Your task to perform on an android device: Go to Android settings Image 0: 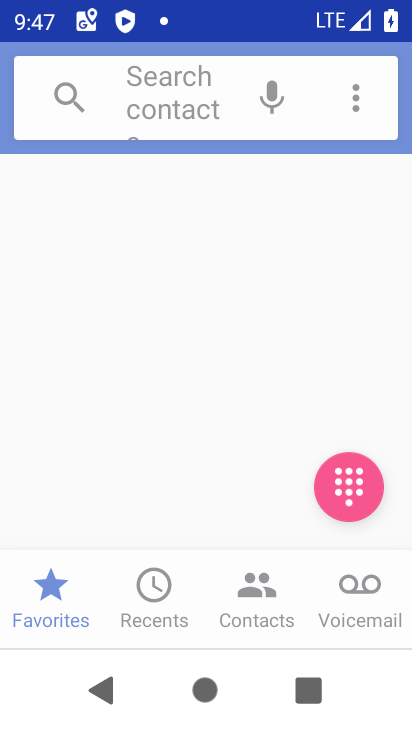
Step 0: drag from (244, 581) to (253, 101)
Your task to perform on an android device: Go to Android settings Image 1: 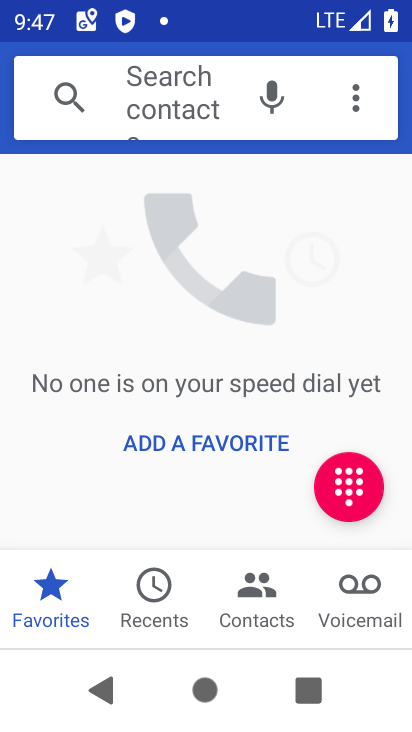
Step 1: press home button
Your task to perform on an android device: Go to Android settings Image 2: 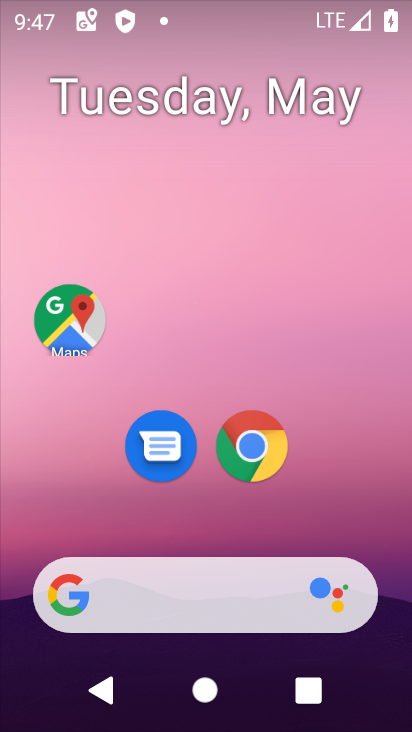
Step 2: drag from (206, 590) to (223, 20)
Your task to perform on an android device: Go to Android settings Image 3: 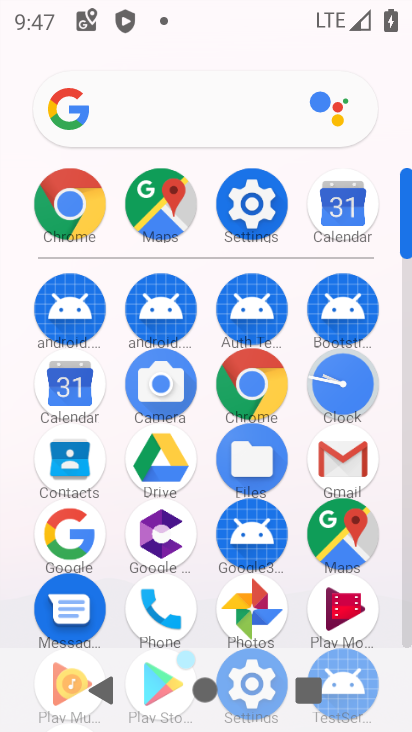
Step 3: click (246, 197)
Your task to perform on an android device: Go to Android settings Image 4: 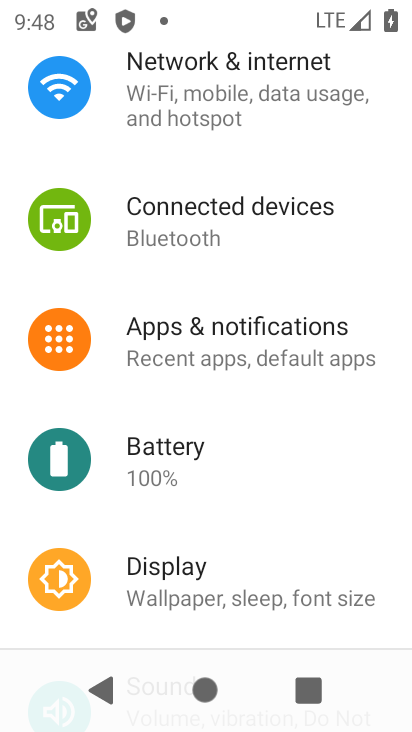
Step 4: task complete